Your task to perform on an android device: snooze an email in the gmail app Image 0: 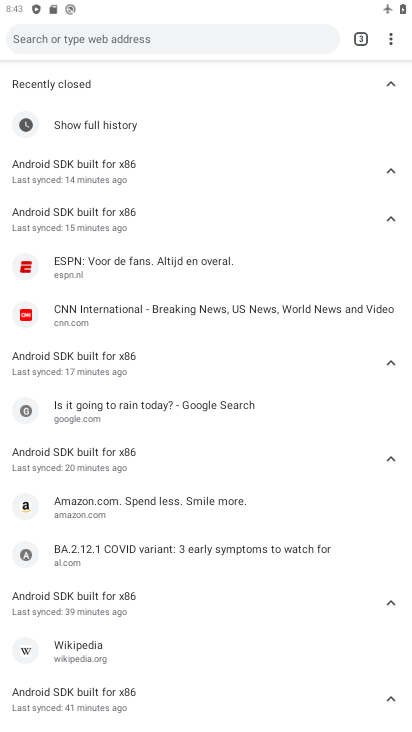
Step 0: press home button
Your task to perform on an android device: snooze an email in the gmail app Image 1: 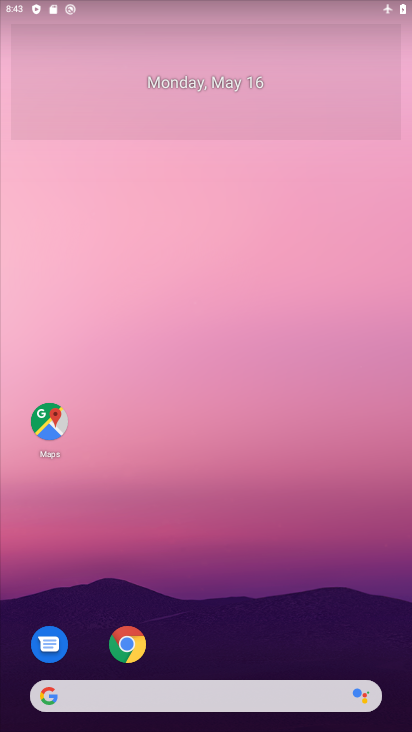
Step 1: drag from (223, 724) to (228, 188)
Your task to perform on an android device: snooze an email in the gmail app Image 2: 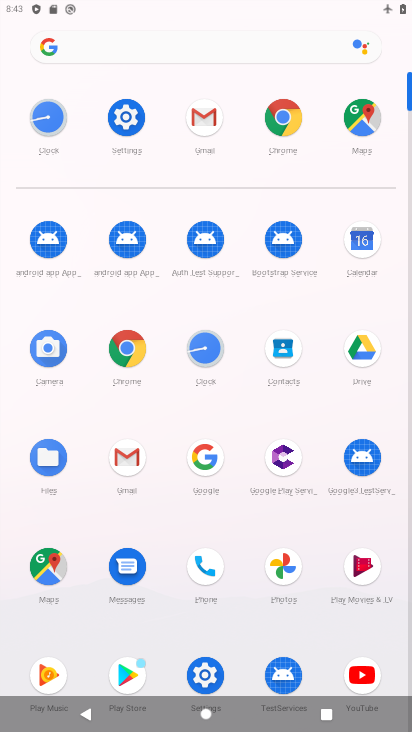
Step 2: click (206, 132)
Your task to perform on an android device: snooze an email in the gmail app Image 3: 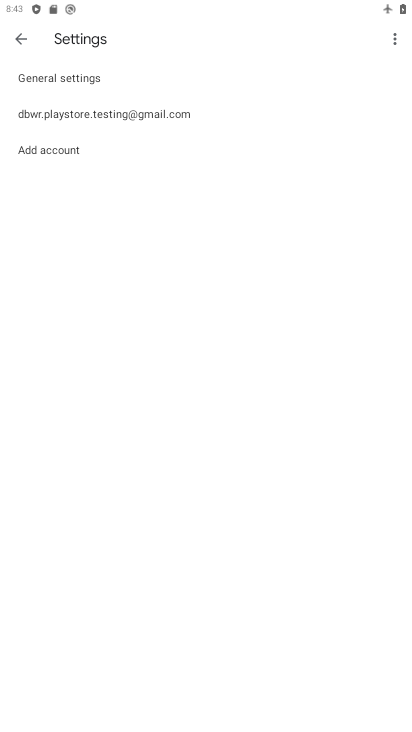
Step 3: click (91, 108)
Your task to perform on an android device: snooze an email in the gmail app Image 4: 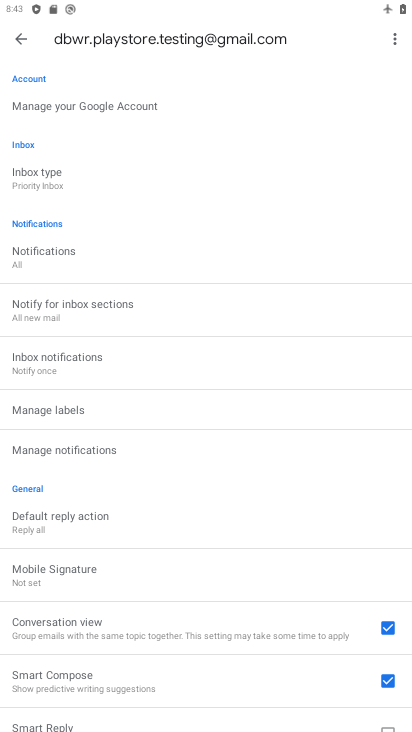
Step 4: click (22, 42)
Your task to perform on an android device: snooze an email in the gmail app Image 5: 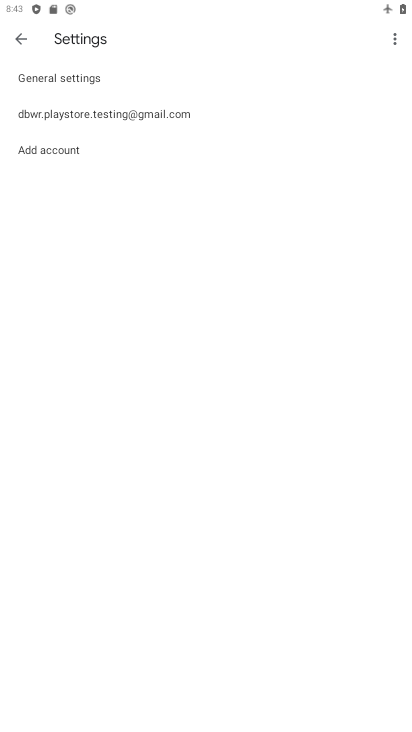
Step 5: click (108, 108)
Your task to perform on an android device: snooze an email in the gmail app Image 6: 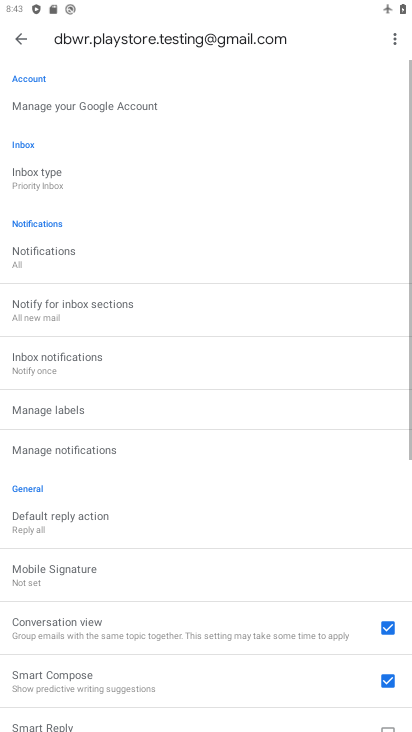
Step 6: click (29, 48)
Your task to perform on an android device: snooze an email in the gmail app Image 7: 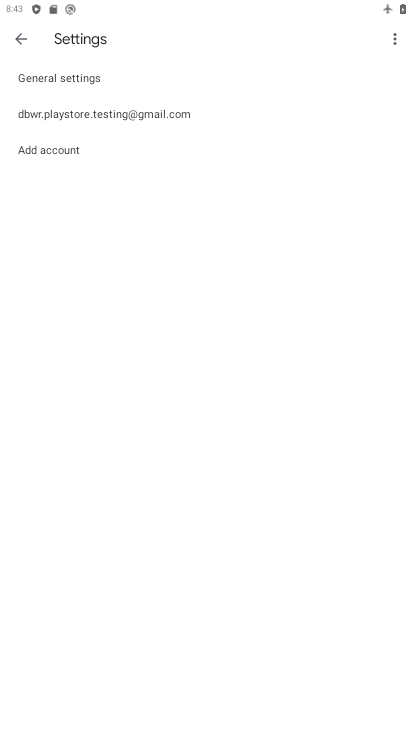
Step 7: click (29, 48)
Your task to perform on an android device: snooze an email in the gmail app Image 8: 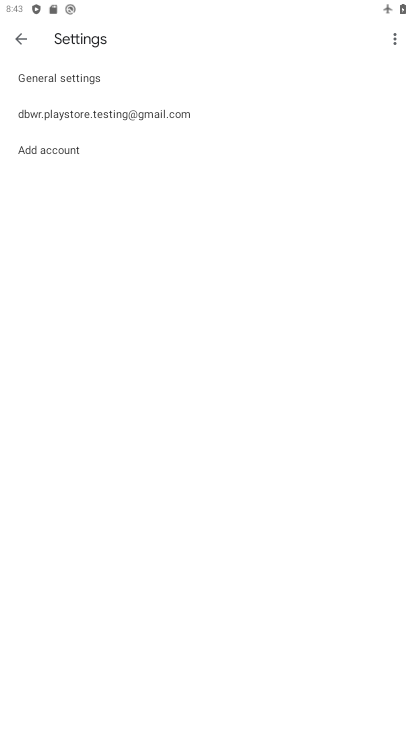
Step 8: click (29, 38)
Your task to perform on an android device: snooze an email in the gmail app Image 9: 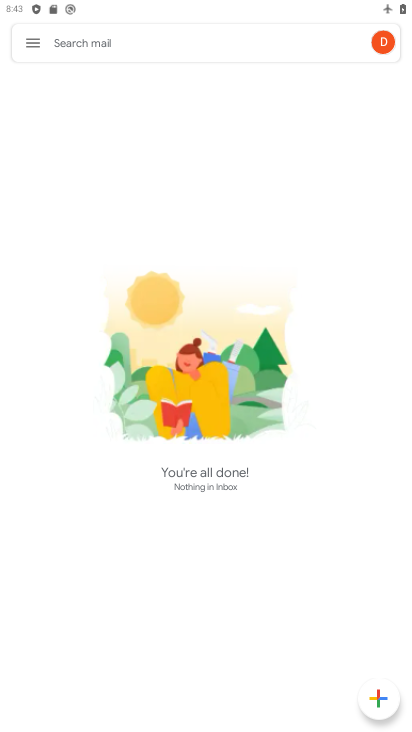
Step 9: click (29, 38)
Your task to perform on an android device: snooze an email in the gmail app Image 10: 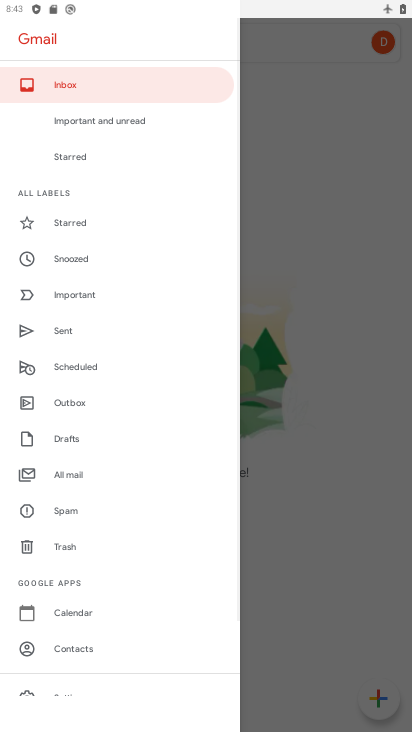
Step 10: click (89, 259)
Your task to perform on an android device: snooze an email in the gmail app Image 11: 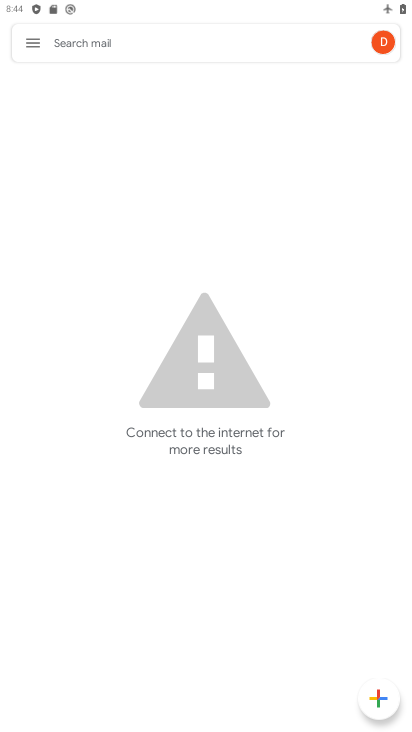
Step 11: task complete